Your task to perform on an android device: open app "Pinterest" (install if not already installed) and go to login screen Image 0: 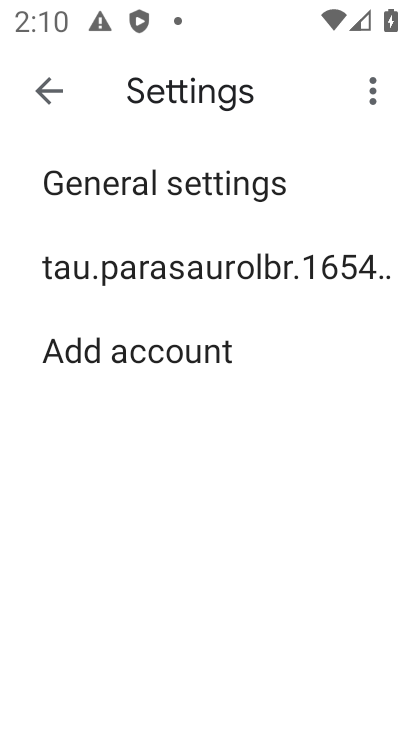
Step 0: press home button
Your task to perform on an android device: open app "Pinterest" (install if not already installed) and go to login screen Image 1: 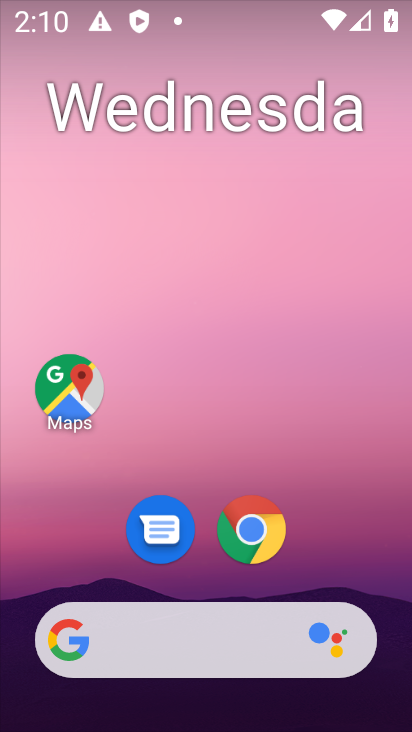
Step 1: drag from (223, 594) to (256, 57)
Your task to perform on an android device: open app "Pinterest" (install if not already installed) and go to login screen Image 2: 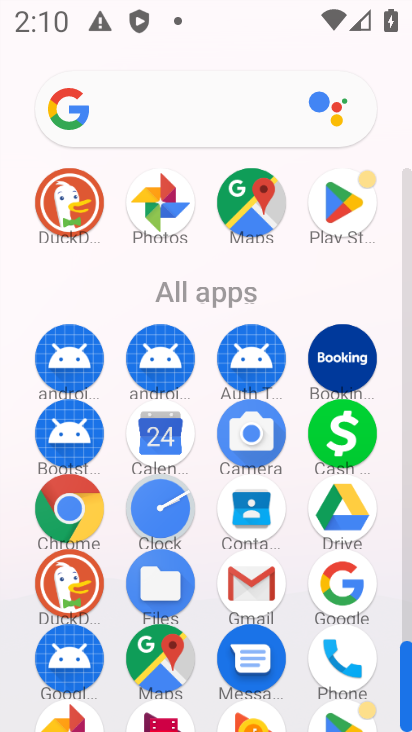
Step 2: click (335, 207)
Your task to perform on an android device: open app "Pinterest" (install if not already installed) and go to login screen Image 3: 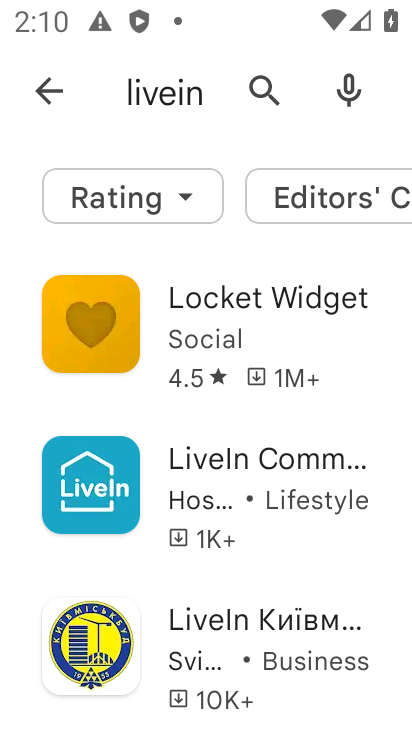
Step 3: drag from (264, 90) to (318, 90)
Your task to perform on an android device: open app "Pinterest" (install if not already installed) and go to login screen Image 4: 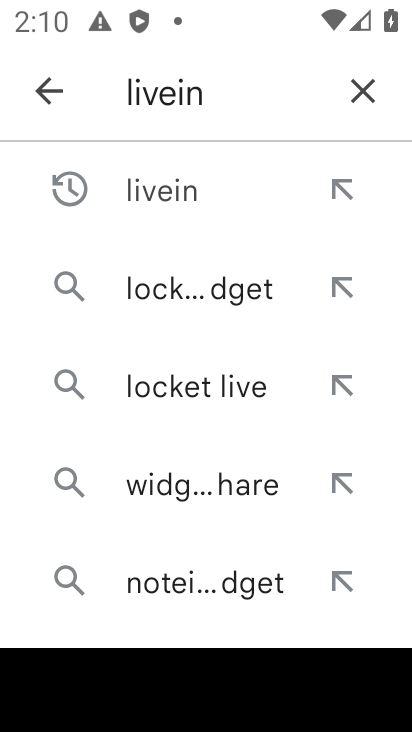
Step 4: click (360, 89)
Your task to perform on an android device: open app "Pinterest" (install if not already installed) and go to login screen Image 5: 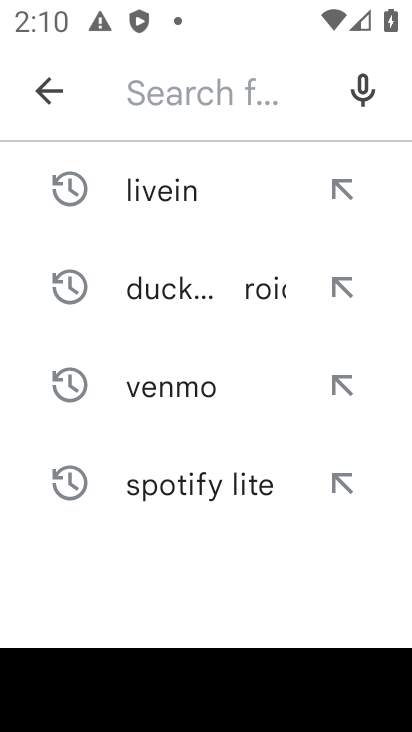
Step 5: type "pinteresr"
Your task to perform on an android device: open app "Pinterest" (install if not already installed) and go to login screen Image 6: 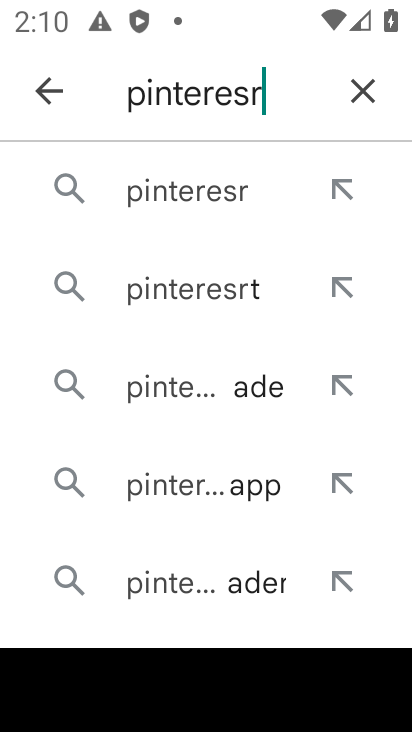
Step 6: click (238, 195)
Your task to perform on an android device: open app "Pinterest" (install if not already installed) and go to login screen Image 7: 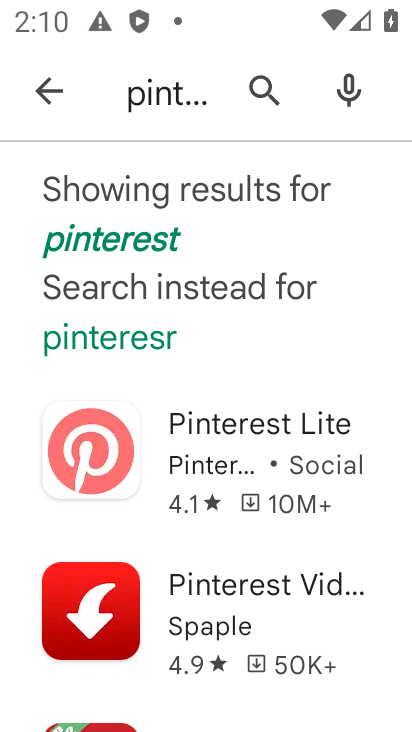
Step 7: click (126, 245)
Your task to perform on an android device: open app "Pinterest" (install if not already installed) and go to login screen Image 8: 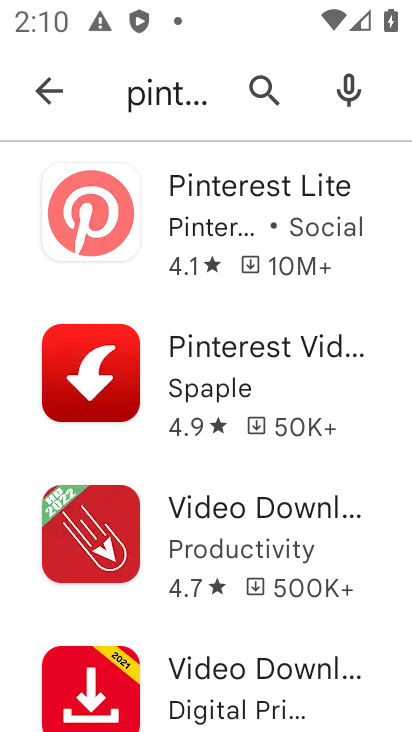
Step 8: click (91, 214)
Your task to perform on an android device: open app "Pinterest" (install if not already installed) and go to login screen Image 9: 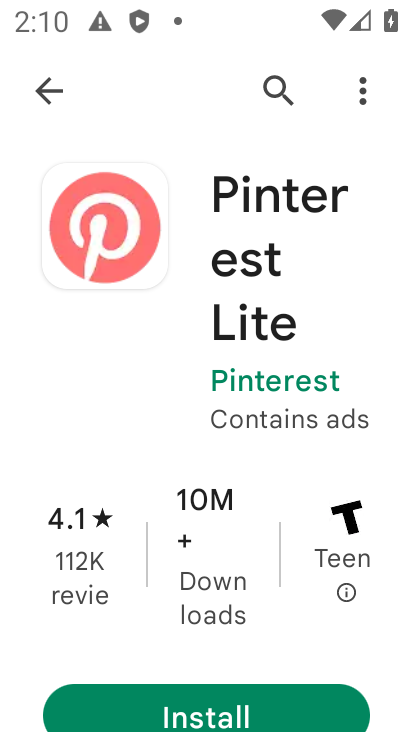
Step 9: task complete